Your task to perform on an android device: Is it going to rain this weekend? Image 0: 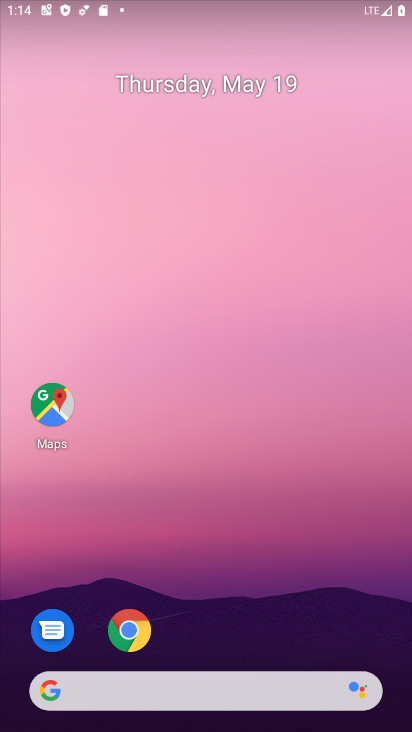
Step 0: drag from (221, 666) to (169, 215)
Your task to perform on an android device: Is it going to rain this weekend? Image 1: 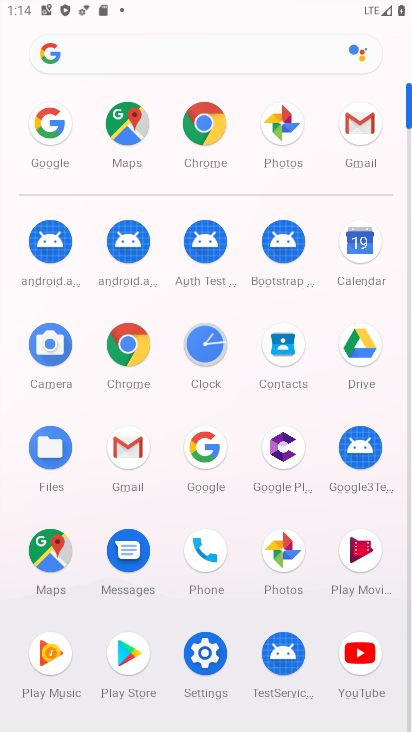
Step 1: click (208, 441)
Your task to perform on an android device: Is it going to rain this weekend? Image 2: 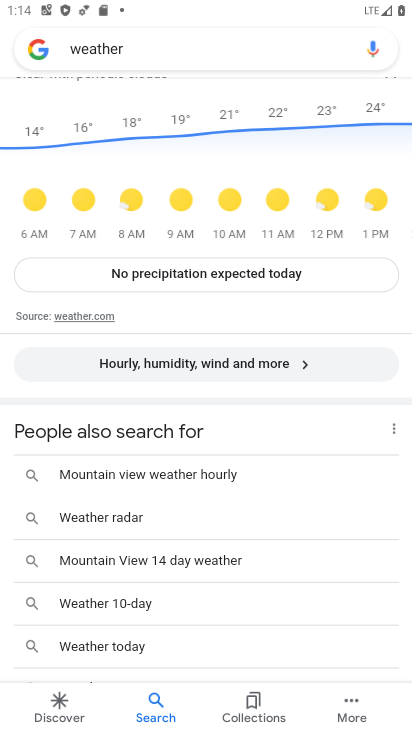
Step 2: drag from (175, 220) to (193, 553)
Your task to perform on an android device: Is it going to rain this weekend? Image 3: 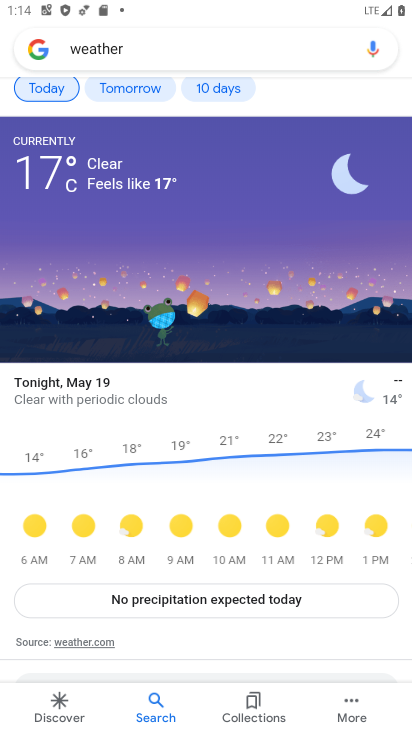
Step 3: click (211, 98)
Your task to perform on an android device: Is it going to rain this weekend? Image 4: 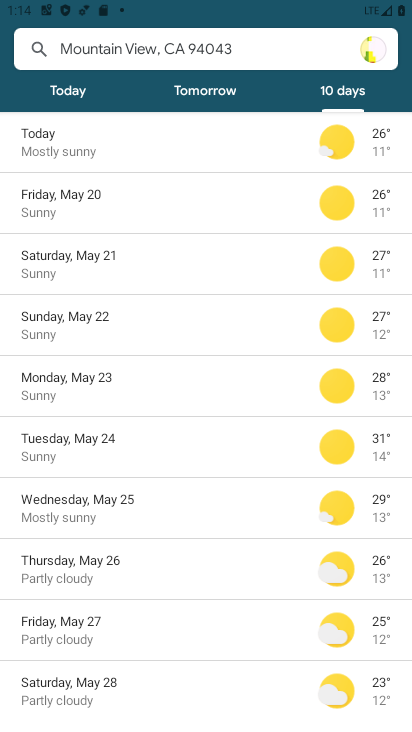
Step 4: task complete